Your task to perform on an android device: open wifi settings Image 0: 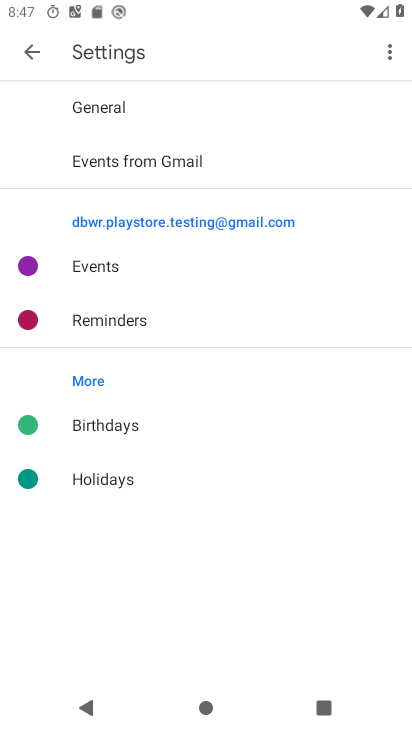
Step 0: press home button
Your task to perform on an android device: open wifi settings Image 1: 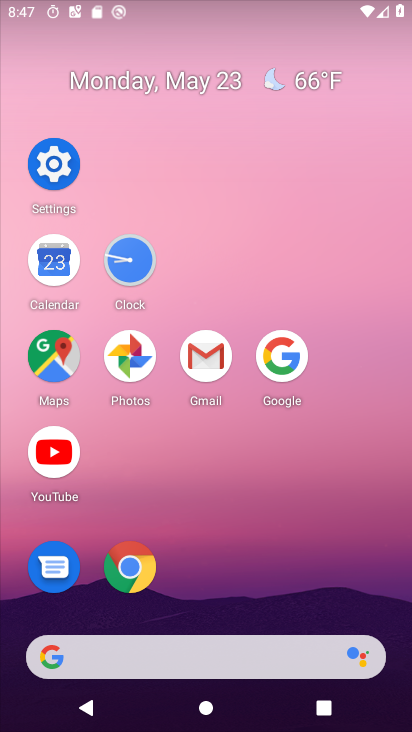
Step 1: click (56, 153)
Your task to perform on an android device: open wifi settings Image 2: 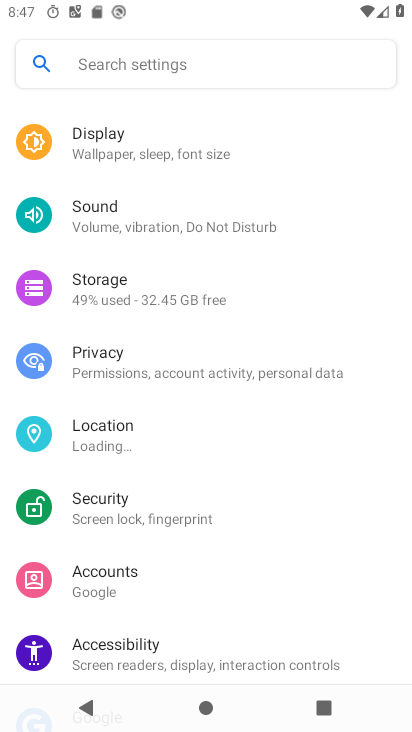
Step 2: drag from (214, 147) to (200, 520)
Your task to perform on an android device: open wifi settings Image 3: 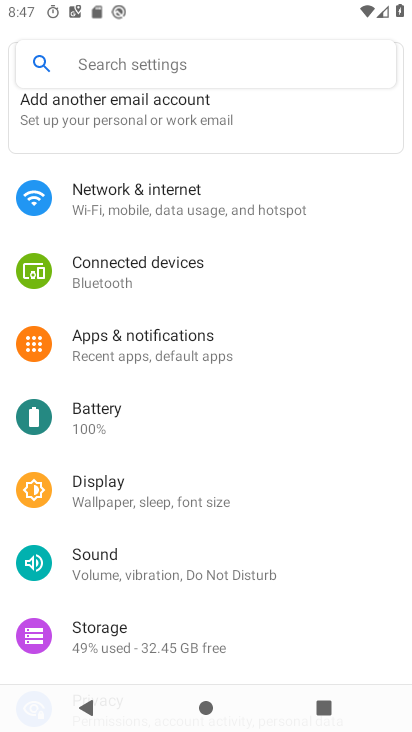
Step 3: click (218, 213)
Your task to perform on an android device: open wifi settings Image 4: 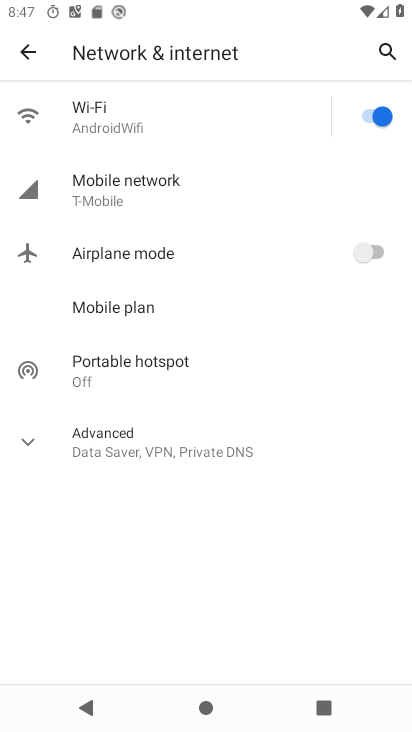
Step 4: click (189, 126)
Your task to perform on an android device: open wifi settings Image 5: 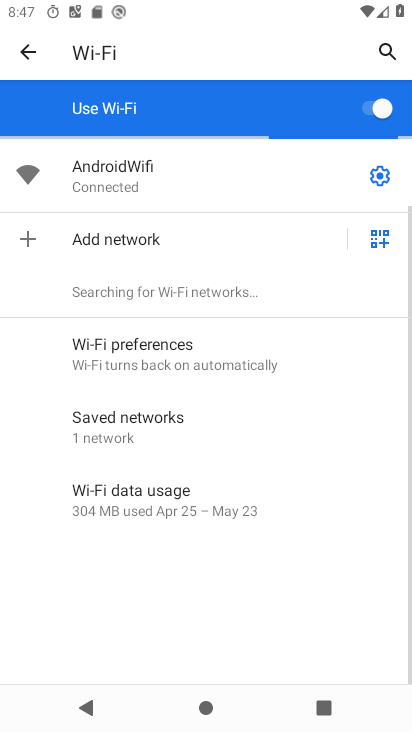
Step 5: click (369, 179)
Your task to perform on an android device: open wifi settings Image 6: 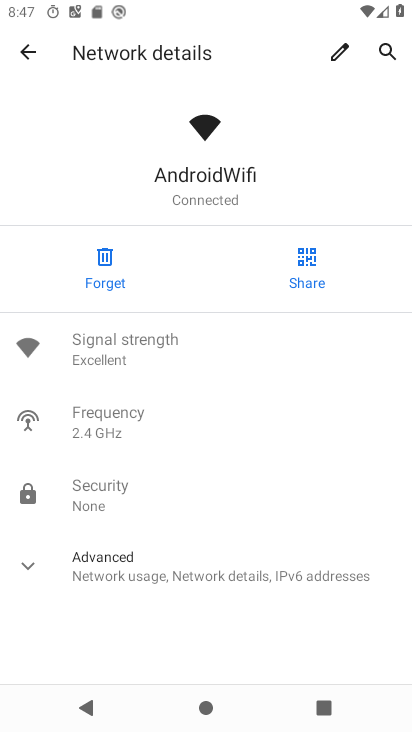
Step 6: task complete